Your task to perform on an android device: toggle priority inbox in the gmail app Image 0: 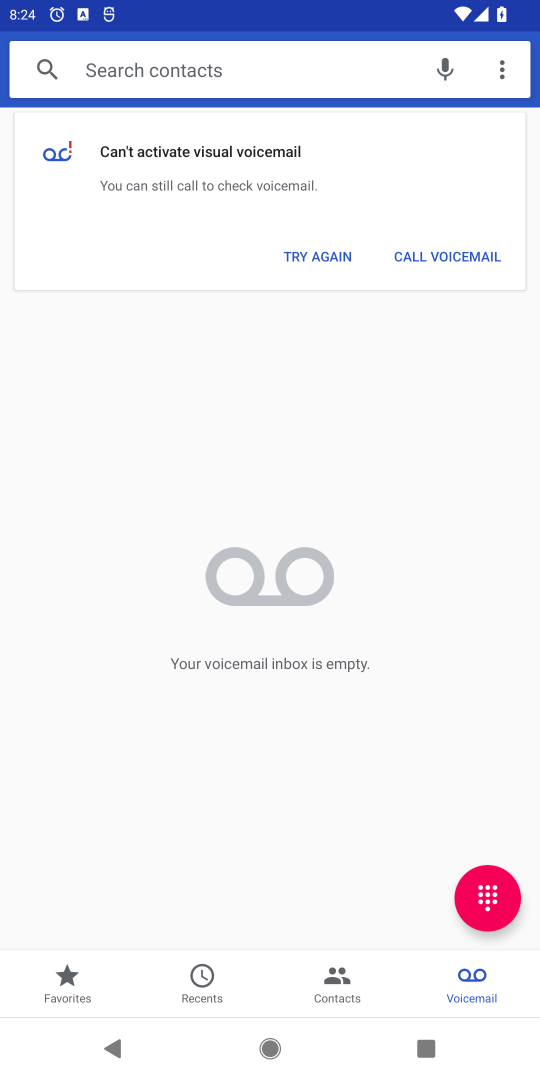
Step 0: press home button
Your task to perform on an android device: toggle priority inbox in the gmail app Image 1: 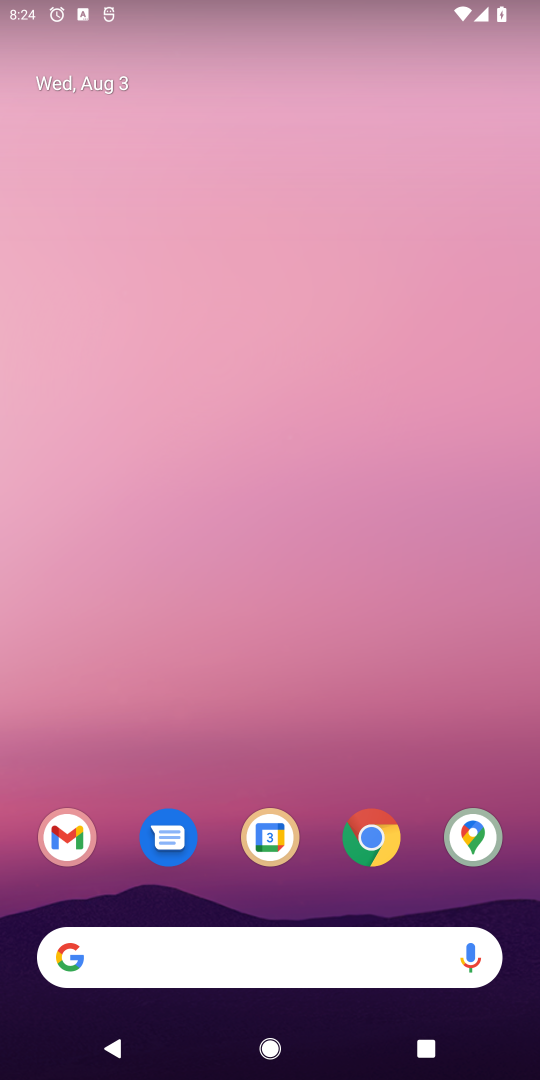
Step 1: click (74, 841)
Your task to perform on an android device: toggle priority inbox in the gmail app Image 2: 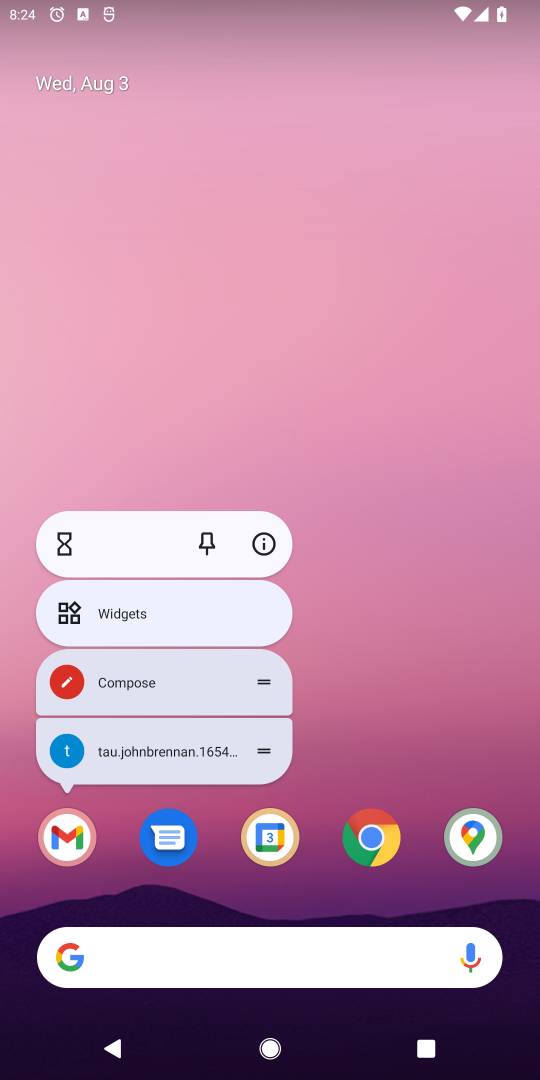
Step 2: click (74, 841)
Your task to perform on an android device: toggle priority inbox in the gmail app Image 3: 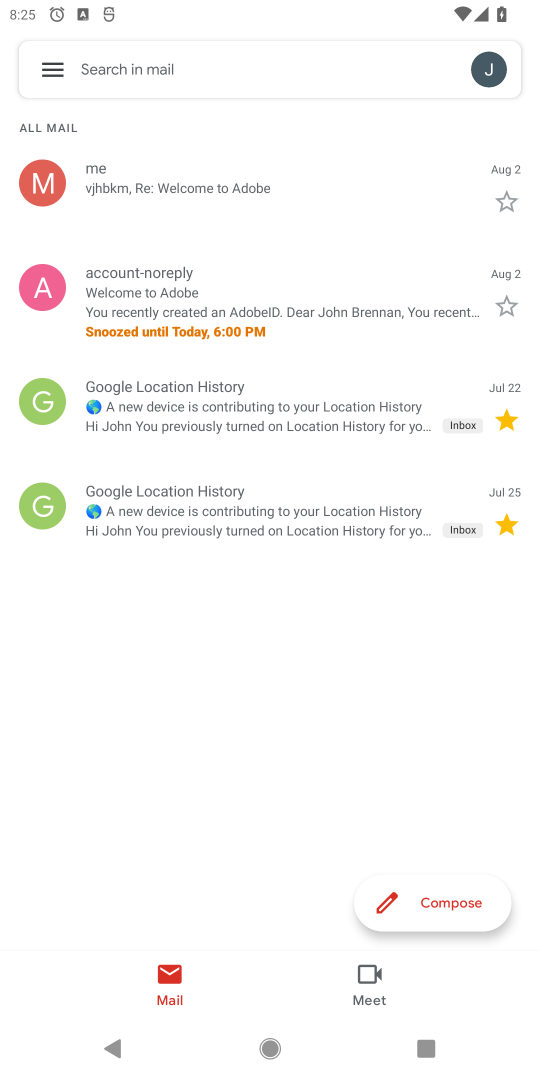
Step 3: click (45, 67)
Your task to perform on an android device: toggle priority inbox in the gmail app Image 4: 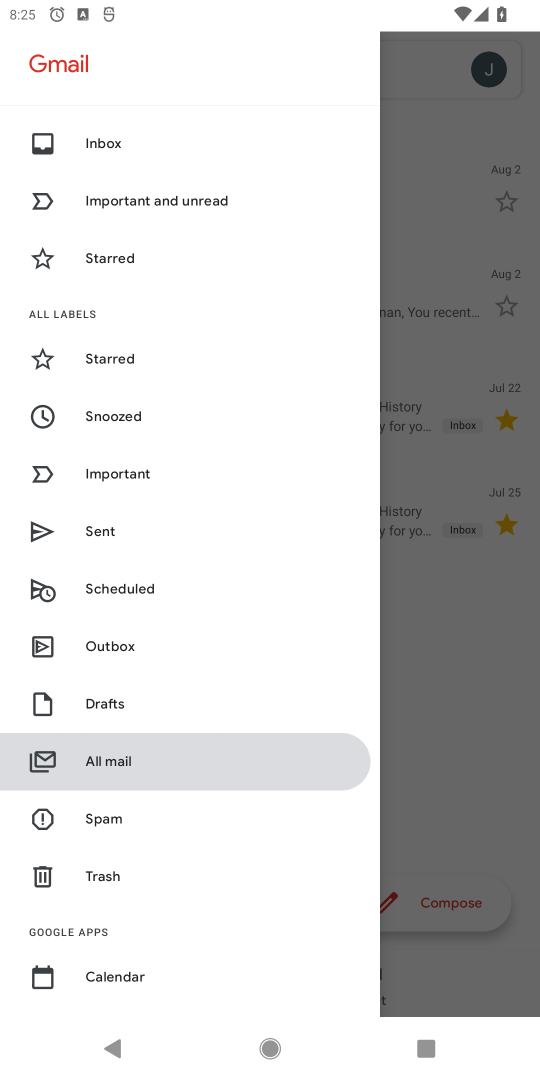
Step 4: drag from (242, 894) to (170, 271)
Your task to perform on an android device: toggle priority inbox in the gmail app Image 5: 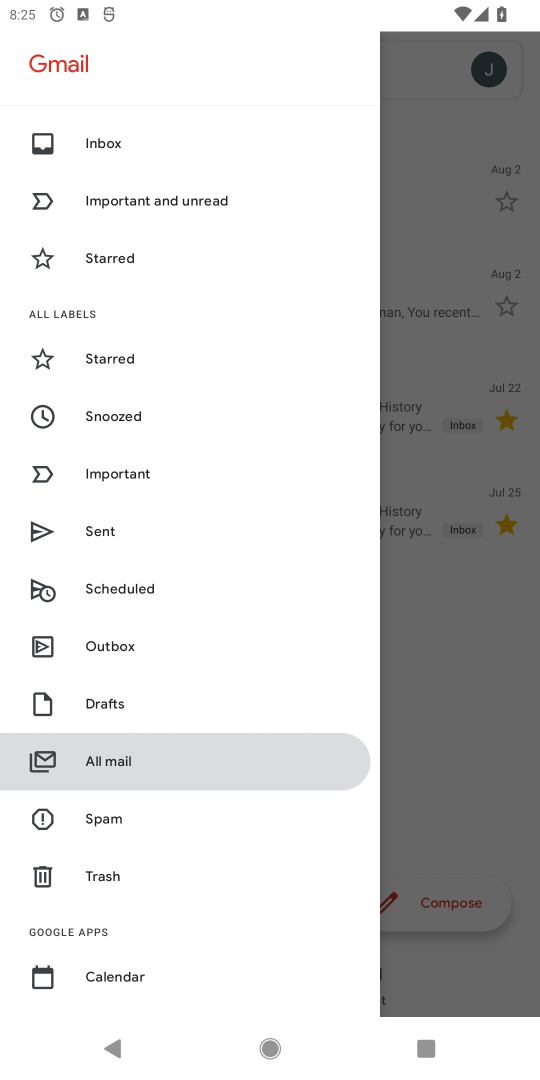
Step 5: drag from (209, 903) to (326, 261)
Your task to perform on an android device: toggle priority inbox in the gmail app Image 6: 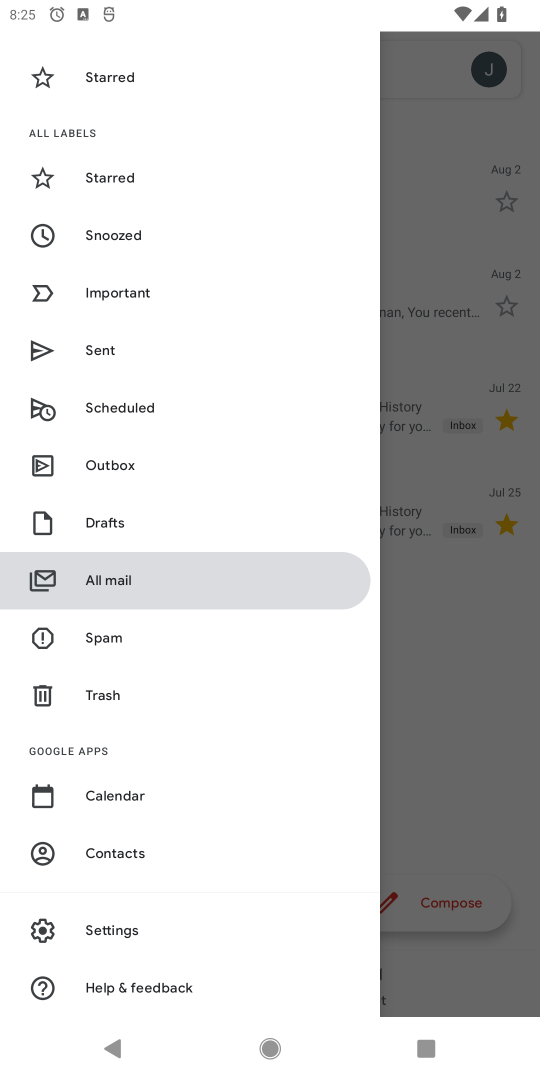
Step 6: click (106, 919)
Your task to perform on an android device: toggle priority inbox in the gmail app Image 7: 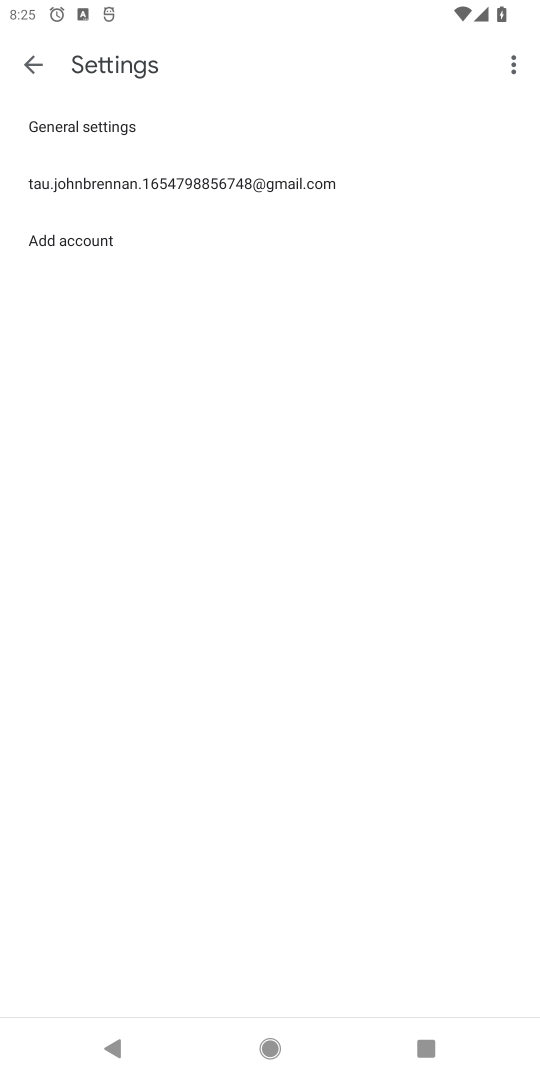
Step 7: click (171, 179)
Your task to perform on an android device: toggle priority inbox in the gmail app Image 8: 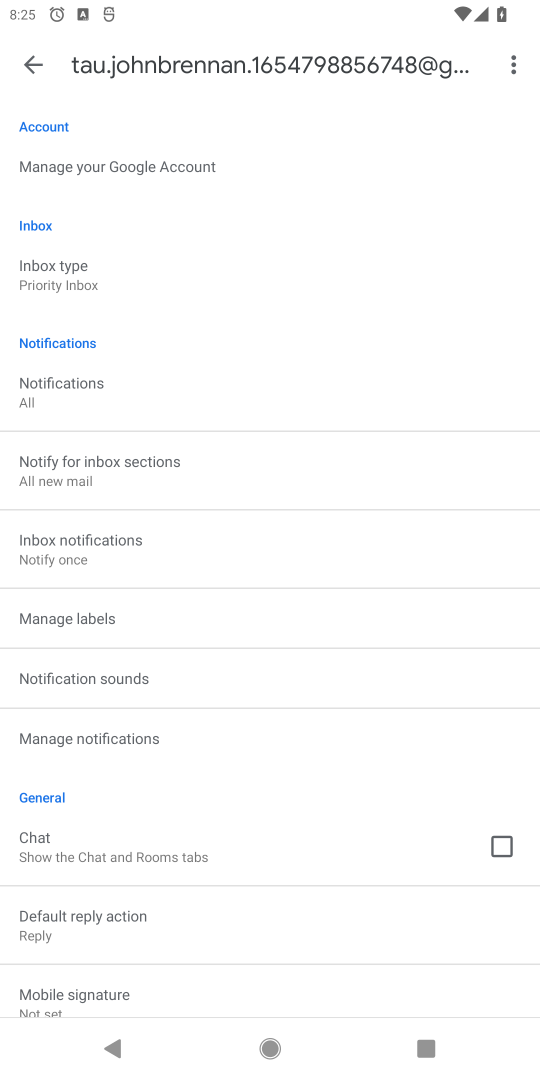
Step 8: click (60, 274)
Your task to perform on an android device: toggle priority inbox in the gmail app Image 9: 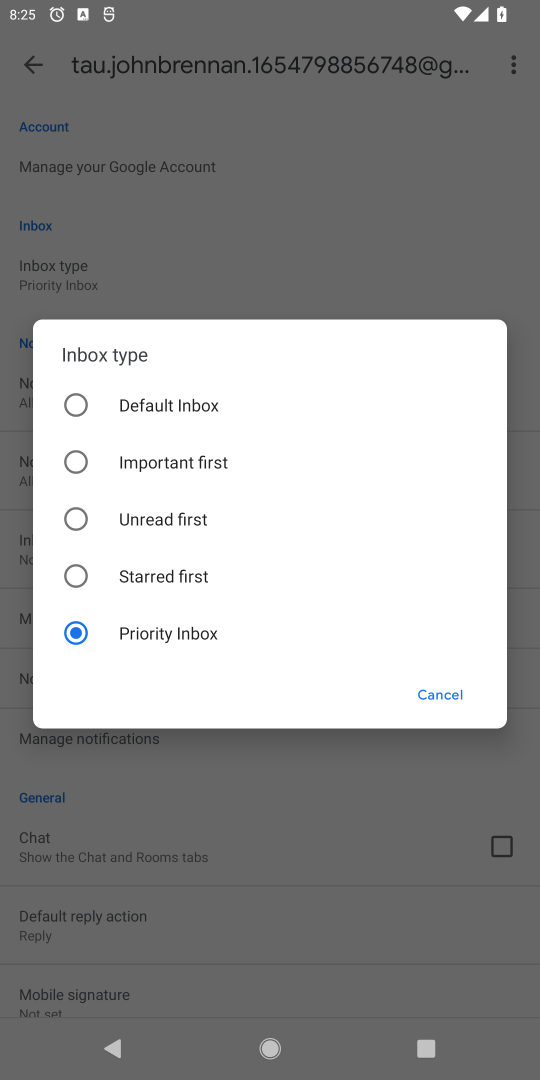
Step 9: click (82, 402)
Your task to perform on an android device: toggle priority inbox in the gmail app Image 10: 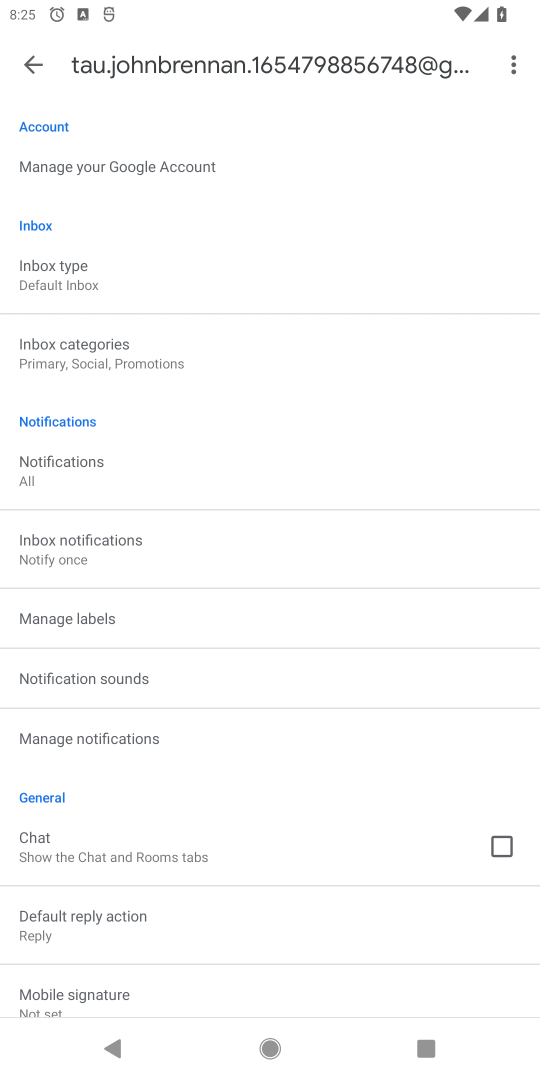
Step 10: task complete